Your task to perform on an android device: open chrome privacy settings Image 0: 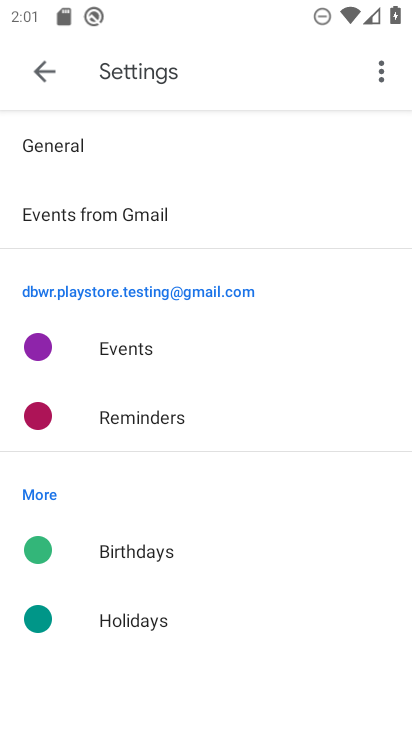
Step 0: drag from (199, 601) to (253, 225)
Your task to perform on an android device: open chrome privacy settings Image 1: 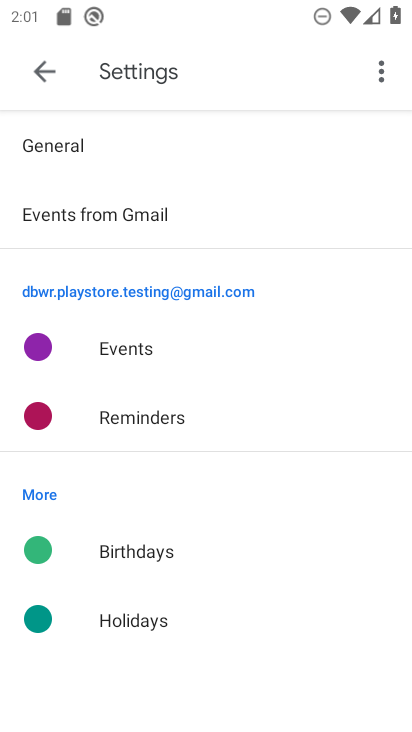
Step 1: press home button
Your task to perform on an android device: open chrome privacy settings Image 2: 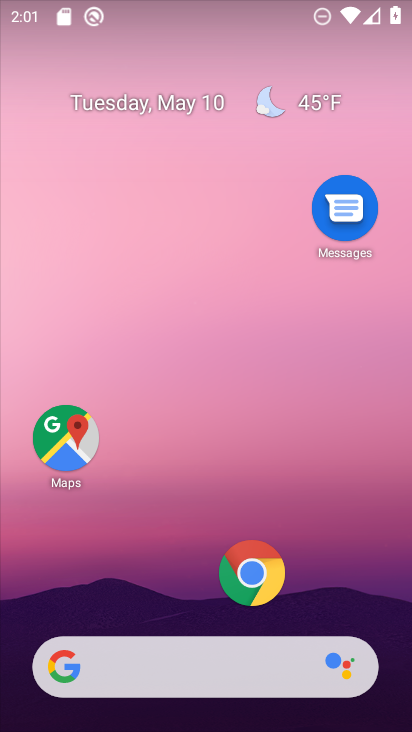
Step 2: drag from (209, 611) to (250, 173)
Your task to perform on an android device: open chrome privacy settings Image 3: 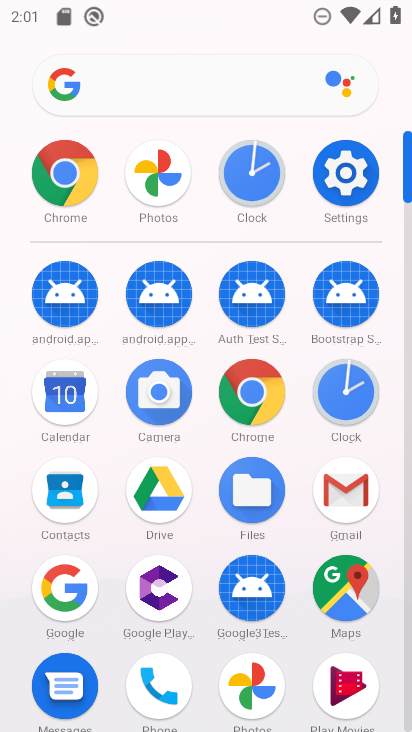
Step 3: drag from (208, 702) to (207, 194)
Your task to perform on an android device: open chrome privacy settings Image 4: 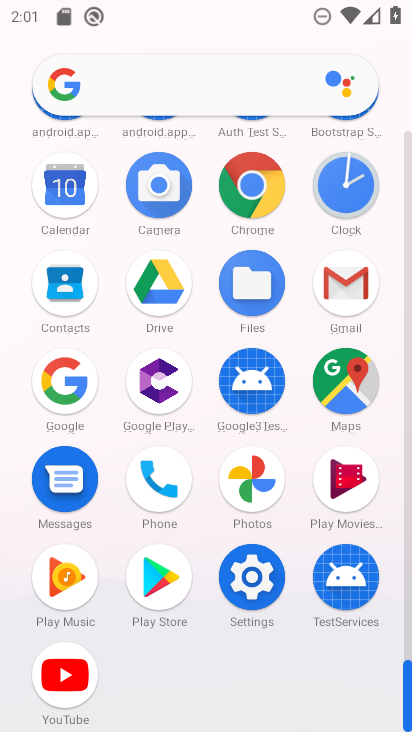
Step 4: click (252, 575)
Your task to perform on an android device: open chrome privacy settings Image 5: 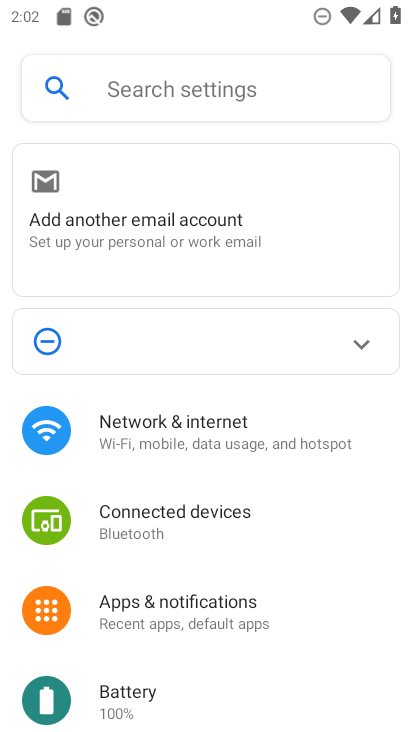
Step 5: drag from (188, 690) to (290, 308)
Your task to perform on an android device: open chrome privacy settings Image 6: 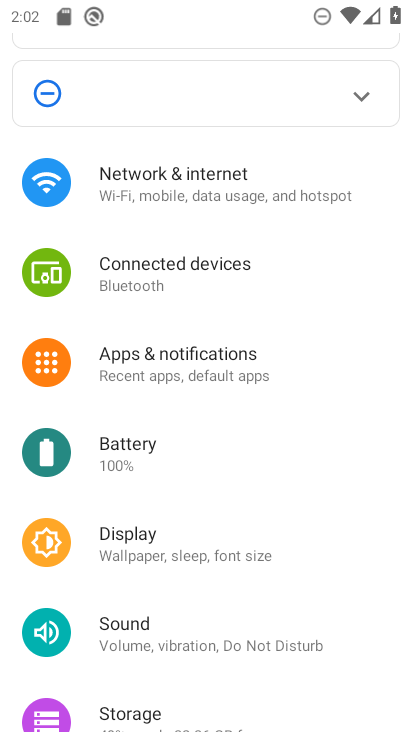
Step 6: drag from (214, 644) to (306, 241)
Your task to perform on an android device: open chrome privacy settings Image 7: 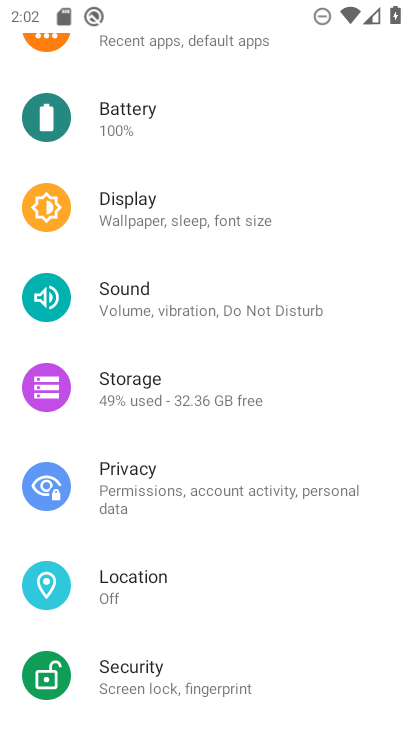
Step 7: click (165, 486)
Your task to perform on an android device: open chrome privacy settings Image 8: 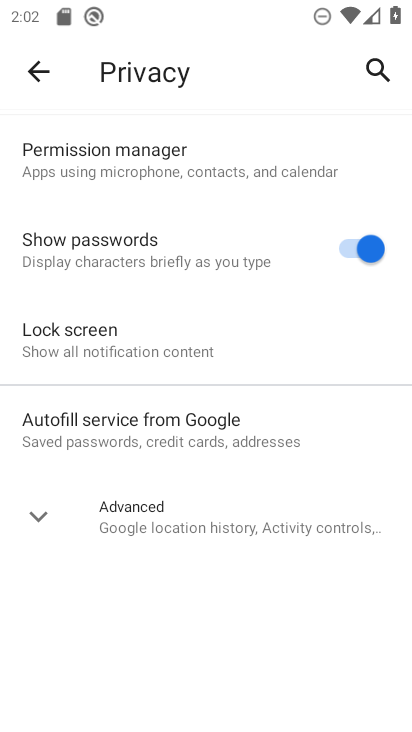
Step 8: task complete